Your task to perform on an android device: Open Chrome and go to the settings page Image 0: 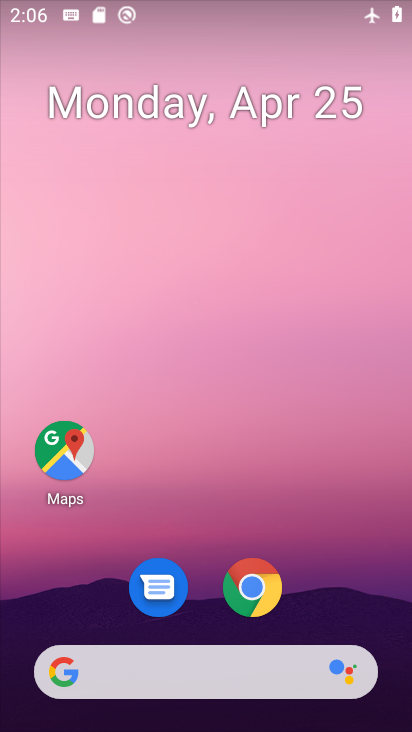
Step 0: drag from (338, 564) to (303, 32)
Your task to perform on an android device: Open Chrome and go to the settings page Image 1: 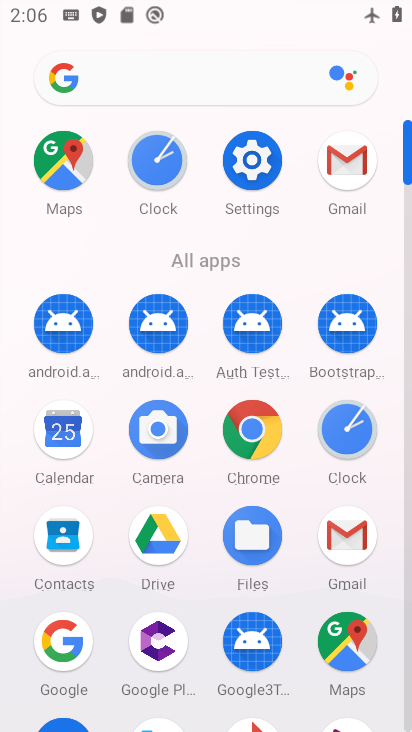
Step 1: click (248, 444)
Your task to perform on an android device: Open Chrome and go to the settings page Image 2: 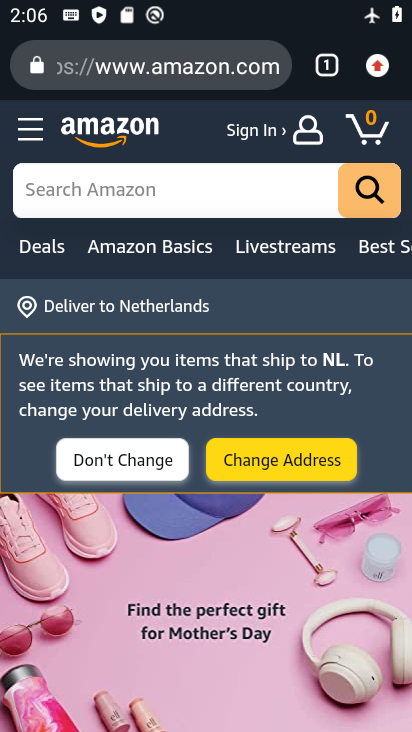
Step 2: task complete